Your task to perform on an android device: remove spam from my inbox in the gmail app Image 0: 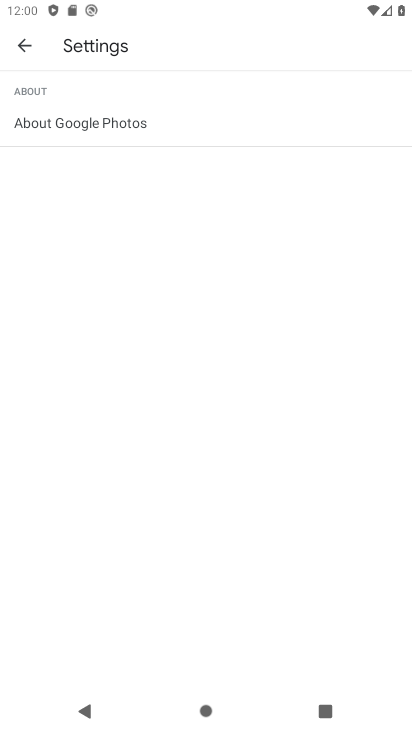
Step 0: press home button
Your task to perform on an android device: remove spam from my inbox in the gmail app Image 1: 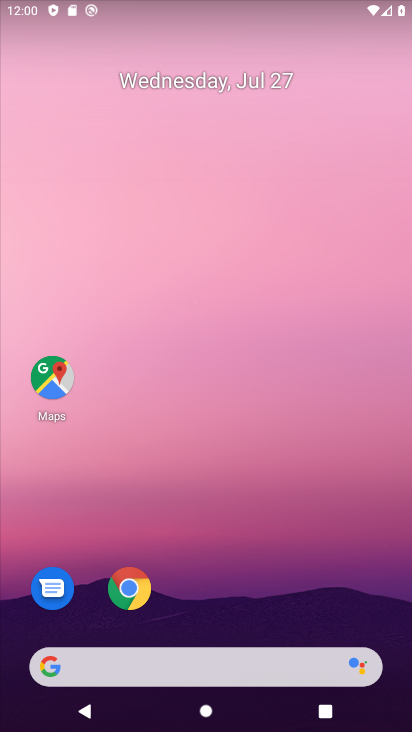
Step 1: drag from (261, 617) to (211, 9)
Your task to perform on an android device: remove spam from my inbox in the gmail app Image 2: 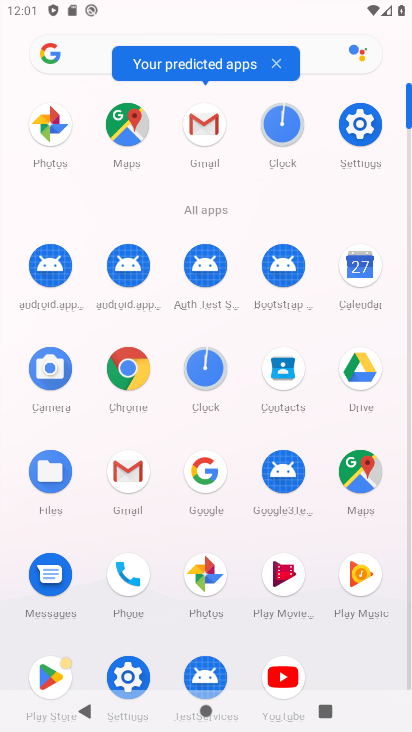
Step 2: click (202, 120)
Your task to perform on an android device: remove spam from my inbox in the gmail app Image 3: 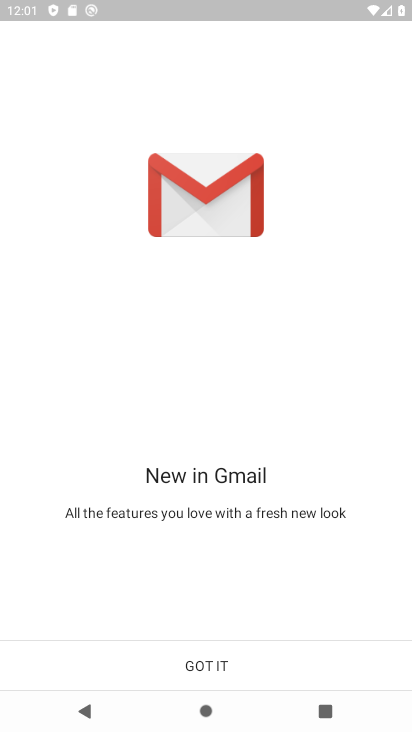
Step 3: click (246, 664)
Your task to perform on an android device: remove spam from my inbox in the gmail app Image 4: 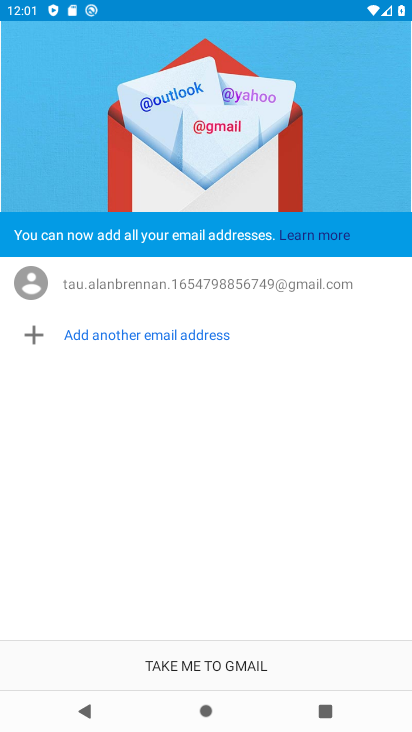
Step 4: click (246, 664)
Your task to perform on an android device: remove spam from my inbox in the gmail app Image 5: 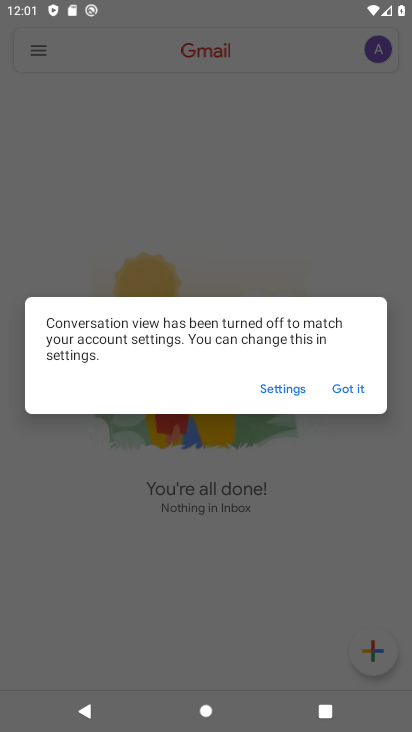
Step 5: click (358, 399)
Your task to perform on an android device: remove spam from my inbox in the gmail app Image 6: 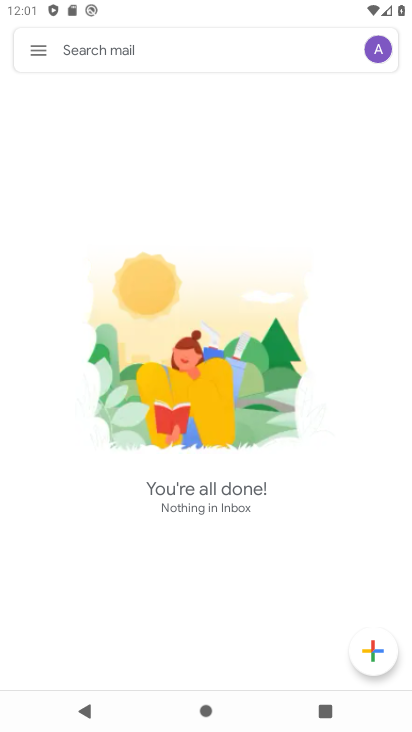
Step 6: click (39, 48)
Your task to perform on an android device: remove spam from my inbox in the gmail app Image 7: 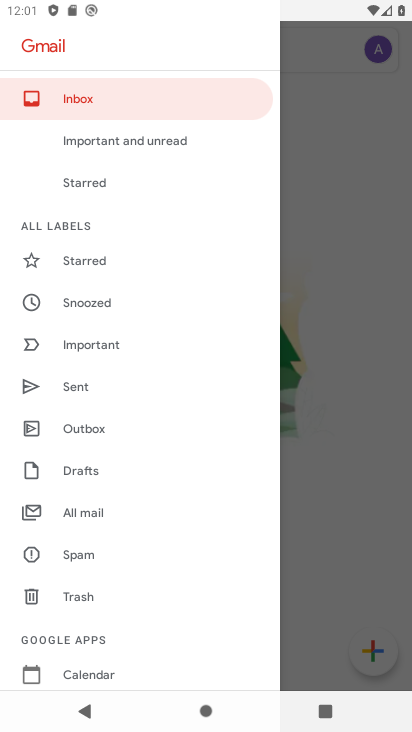
Step 7: click (151, 560)
Your task to perform on an android device: remove spam from my inbox in the gmail app Image 8: 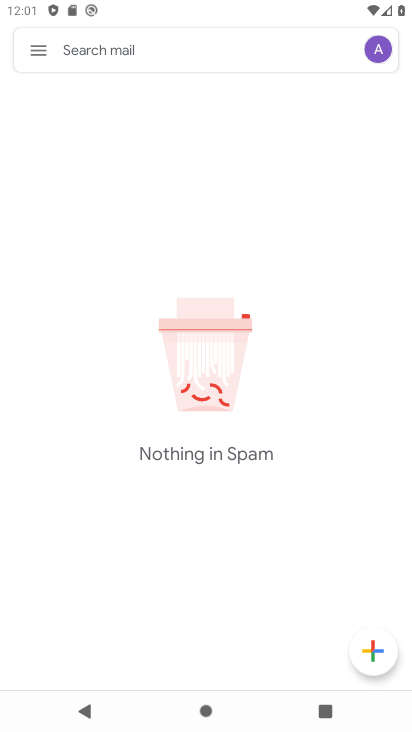
Step 8: task complete